Your task to perform on an android device: find photos in the google photos app Image 0: 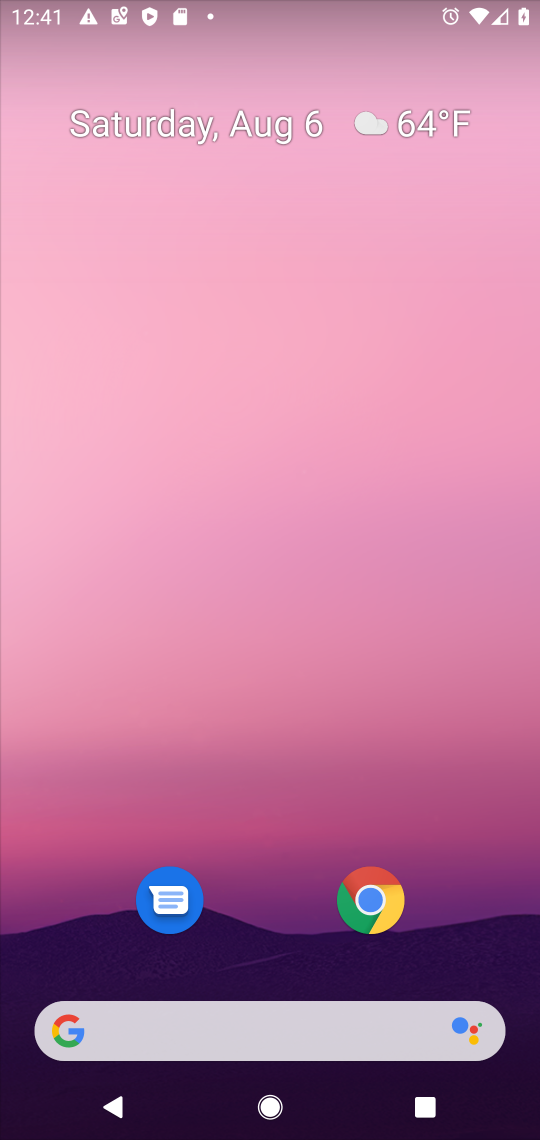
Step 0: drag from (263, 632) to (263, 110)
Your task to perform on an android device: find photos in the google photos app Image 1: 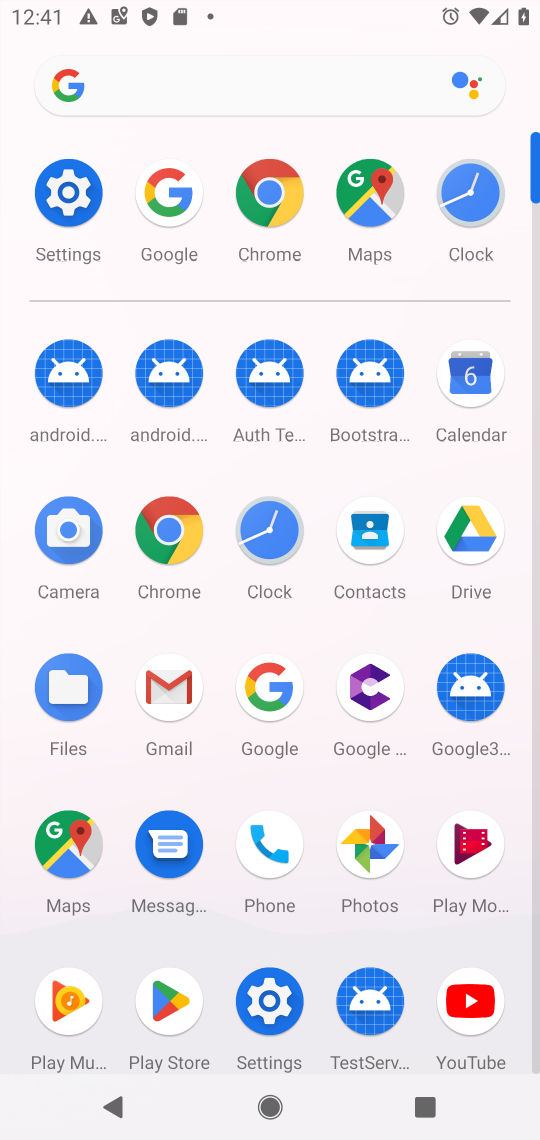
Step 1: click (380, 837)
Your task to perform on an android device: find photos in the google photos app Image 2: 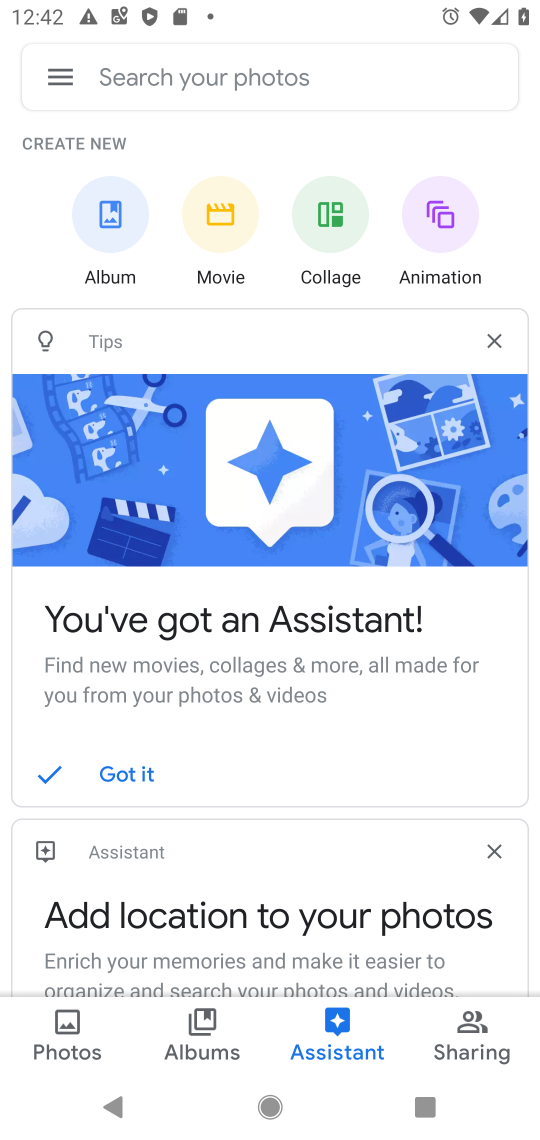
Step 2: click (68, 1028)
Your task to perform on an android device: find photos in the google photos app Image 3: 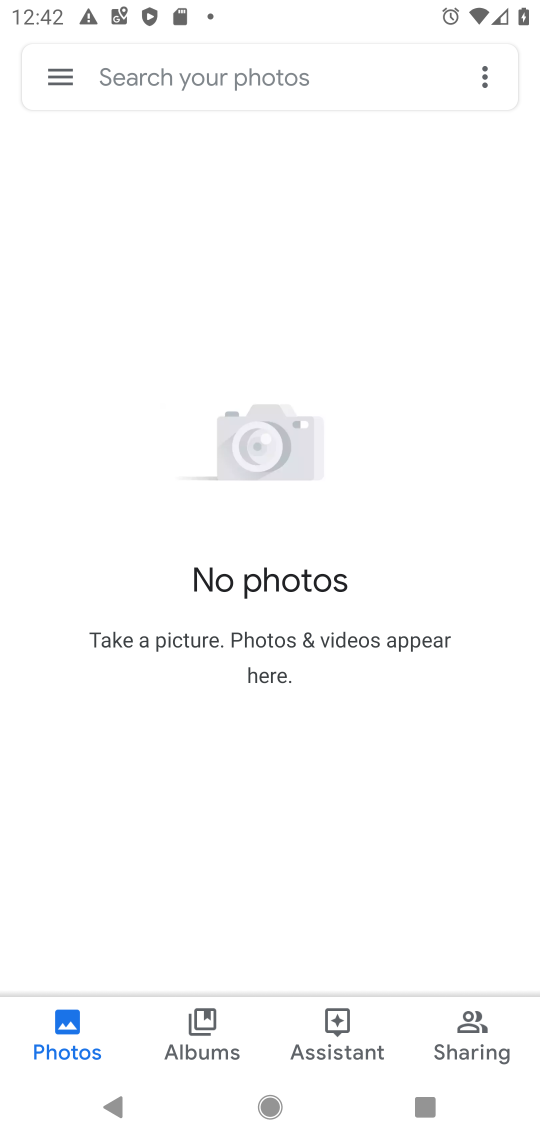
Step 3: task complete